Your task to perform on an android device: Add "lg ultragear" to the cart on walmart Image 0: 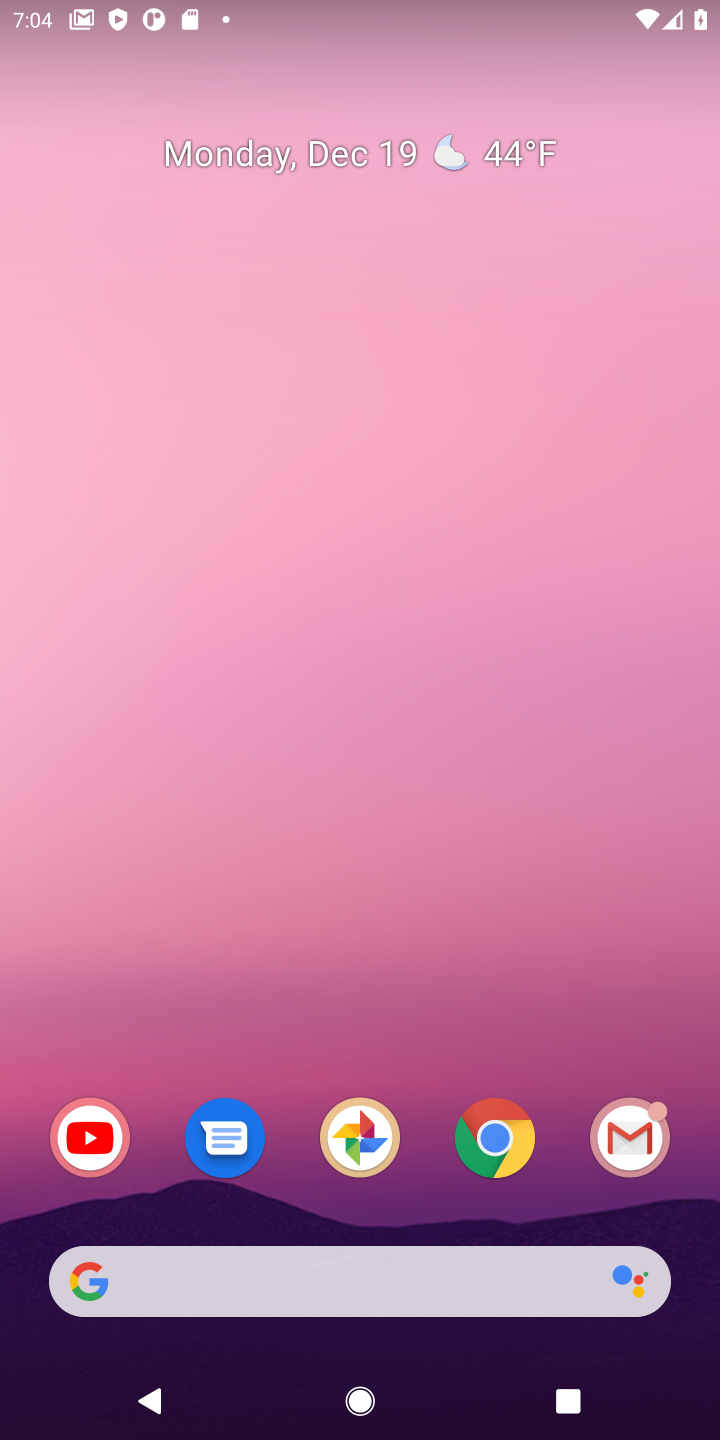
Step 0: click (491, 1135)
Your task to perform on an android device: Add "lg ultragear" to the cart on walmart Image 1: 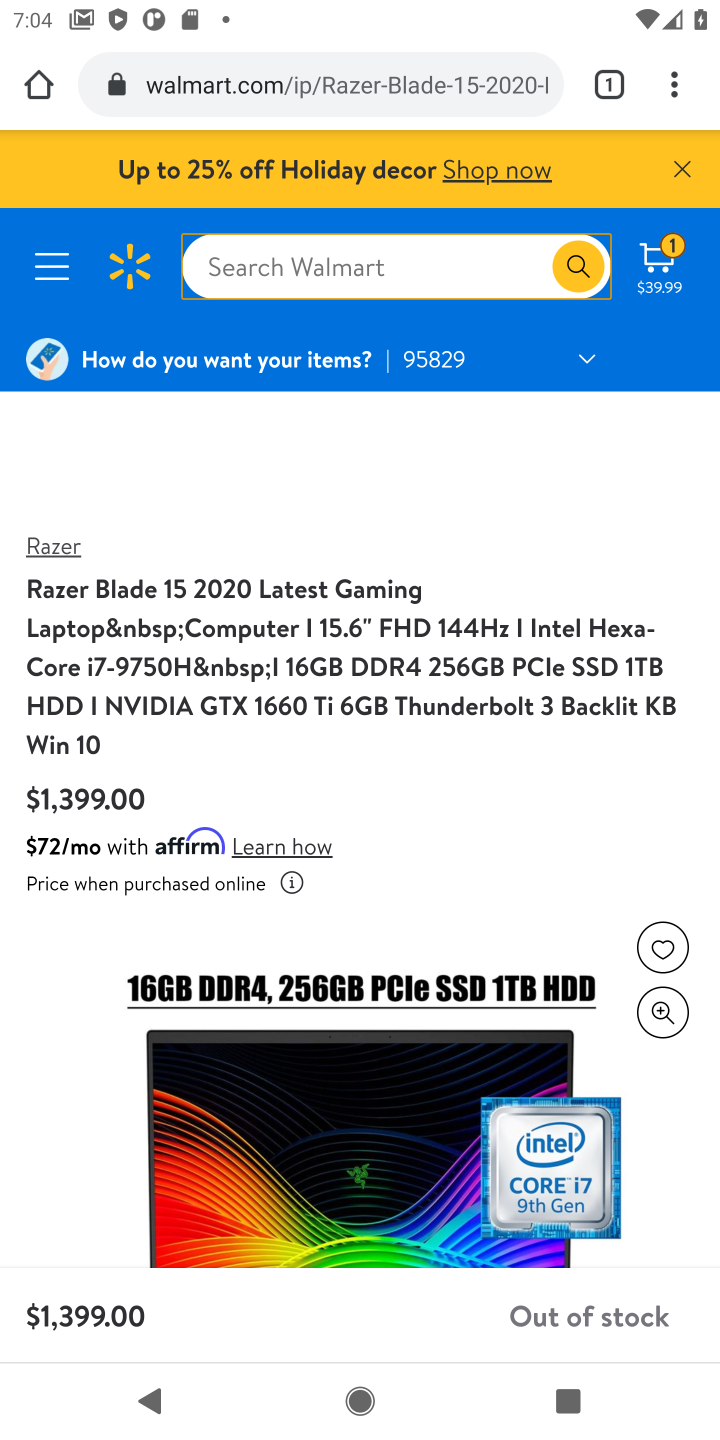
Step 1: click (368, 83)
Your task to perform on an android device: Add "lg ultragear" to the cart on walmart Image 2: 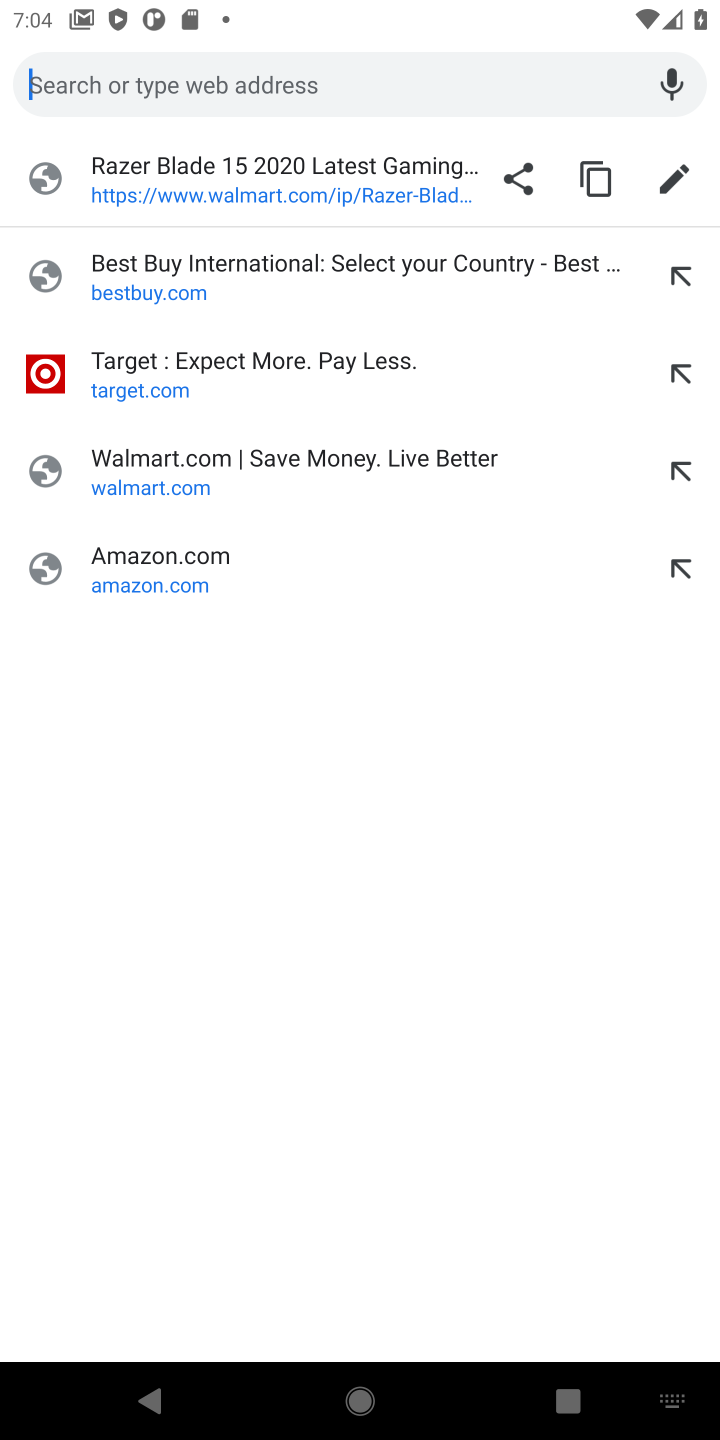
Step 2: click (255, 479)
Your task to perform on an android device: Add "lg ultragear" to the cart on walmart Image 3: 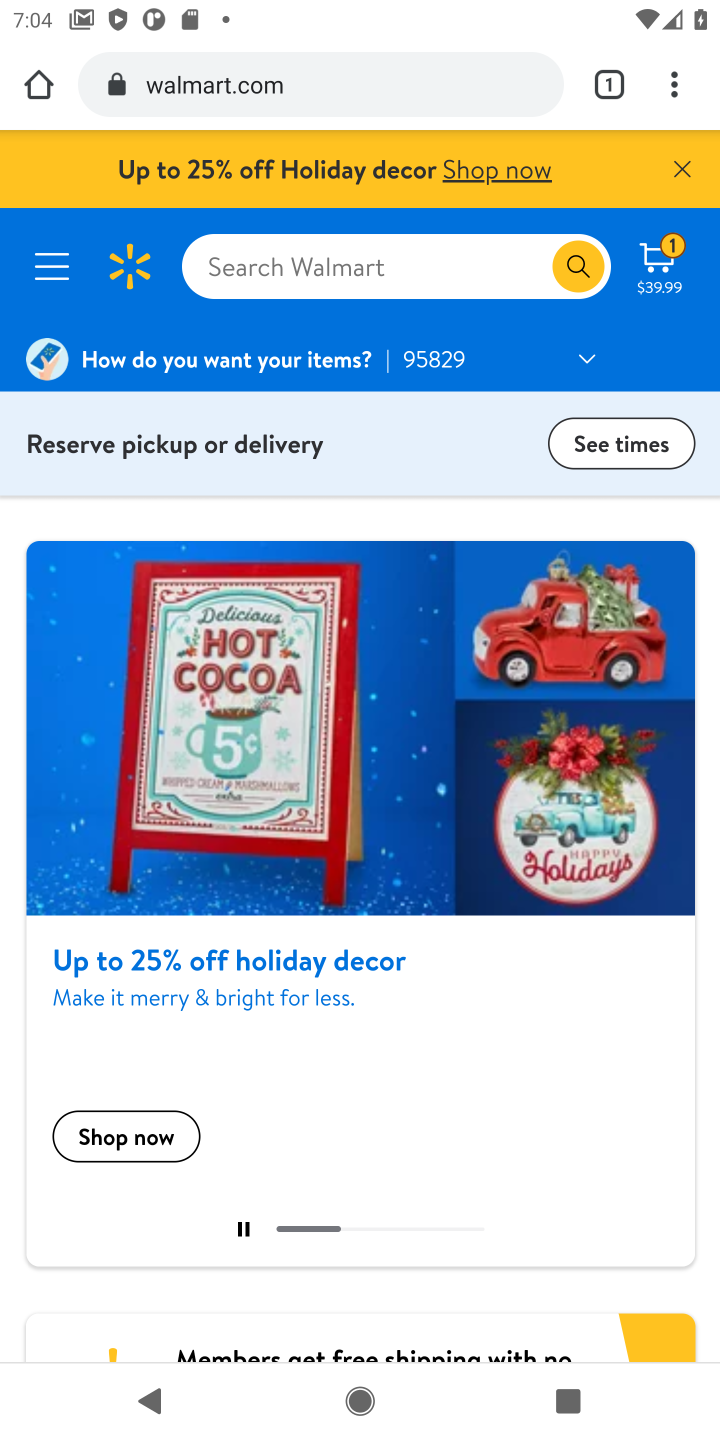
Step 3: click (370, 244)
Your task to perform on an android device: Add "lg ultragear" to the cart on walmart Image 4: 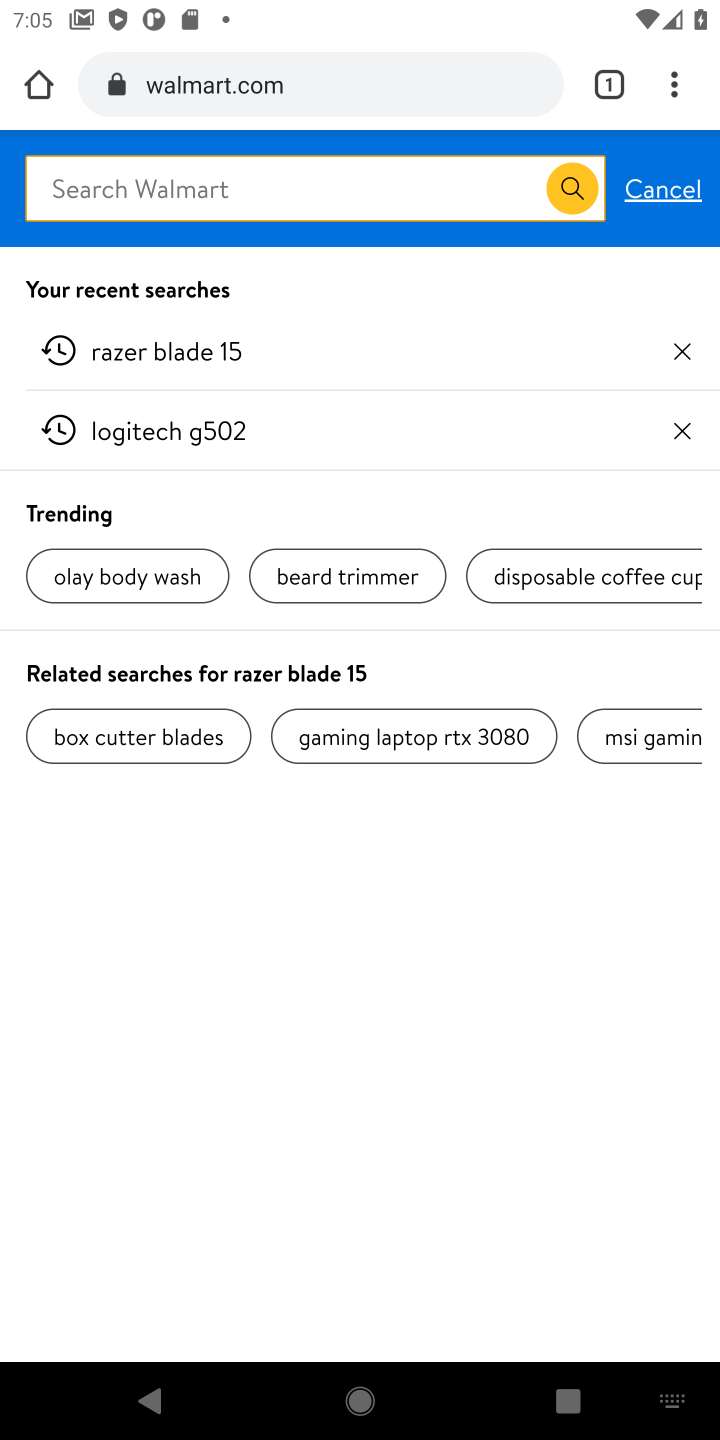
Step 4: type "LG ULTRAGEAR"
Your task to perform on an android device: Add "lg ultragear" to the cart on walmart Image 5: 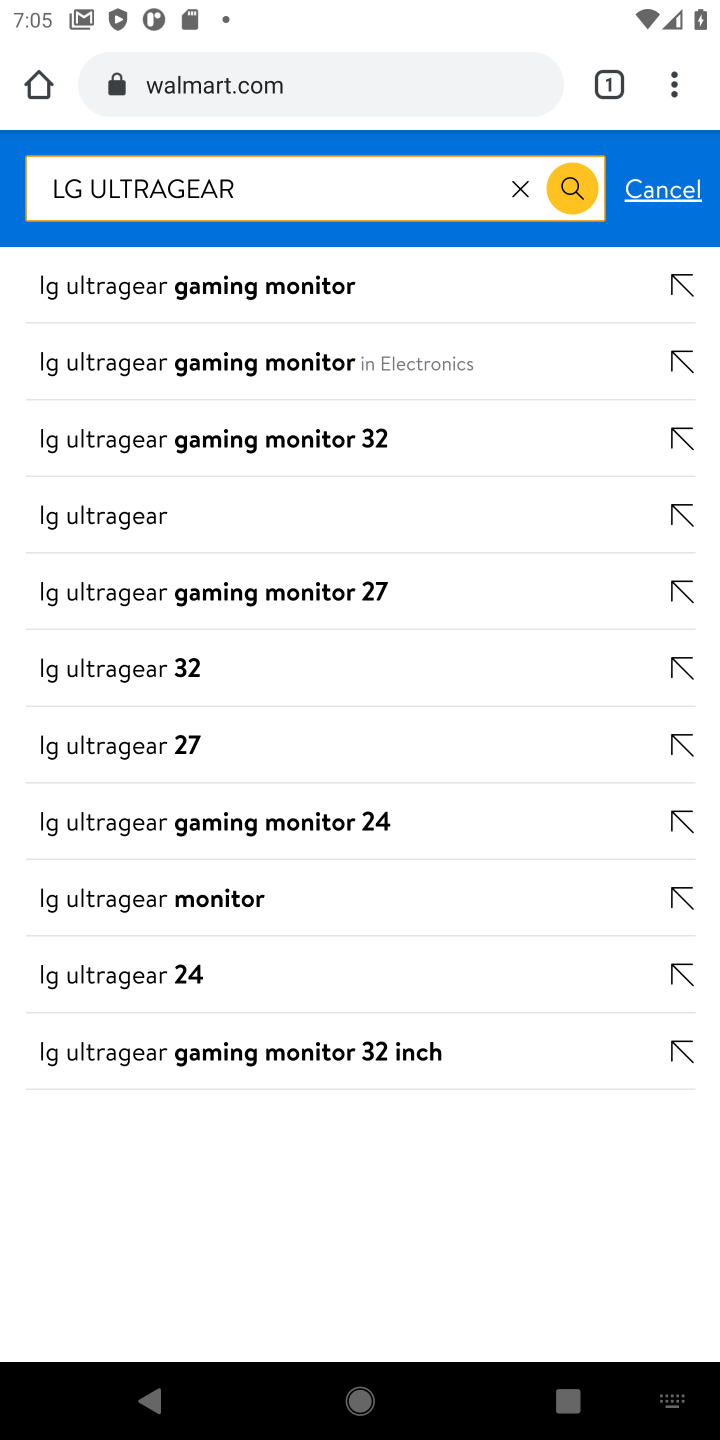
Step 5: click (192, 289)
Your task to perform on an android device: Add "lg ultragear" to the cart on walmart Image 6: 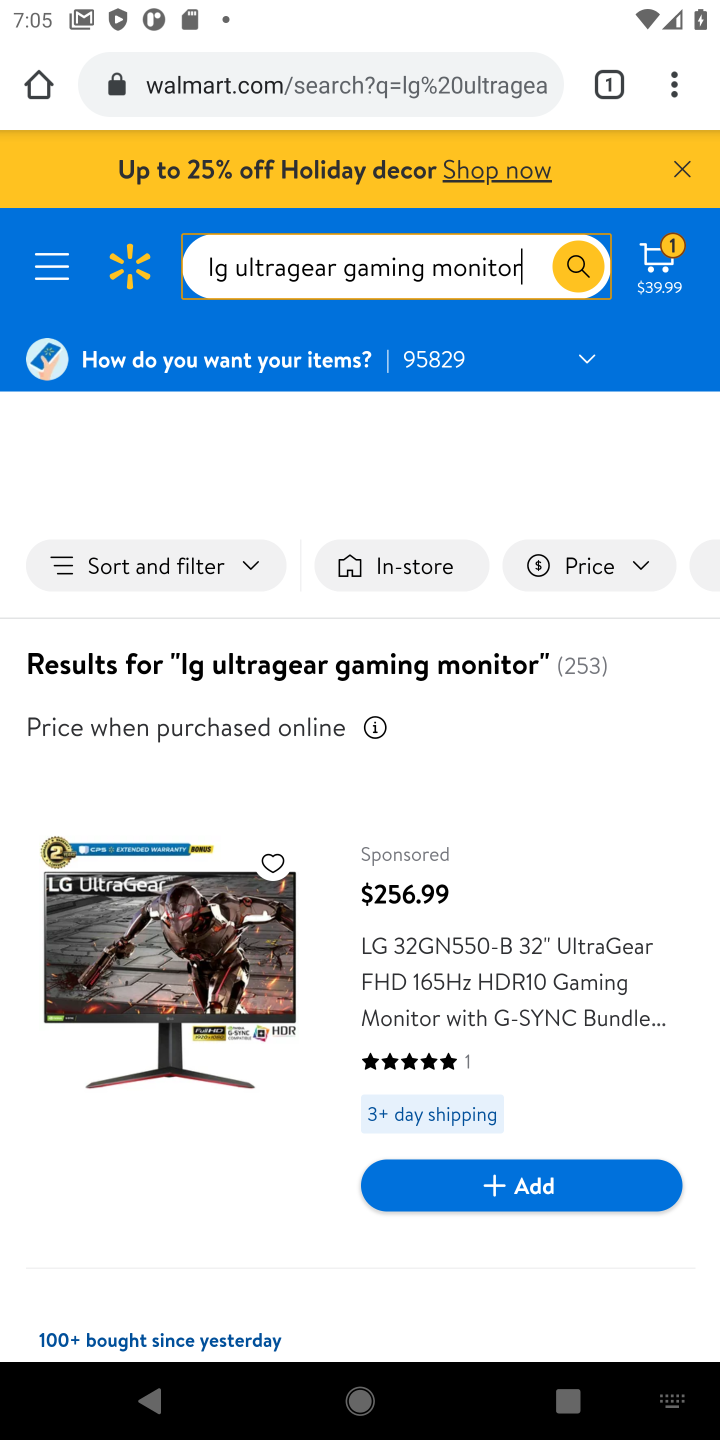
Step 6: click (572, 275)
Your task to perform on an android device: Add "lg ultragear" to the cart on walmart Image 7: 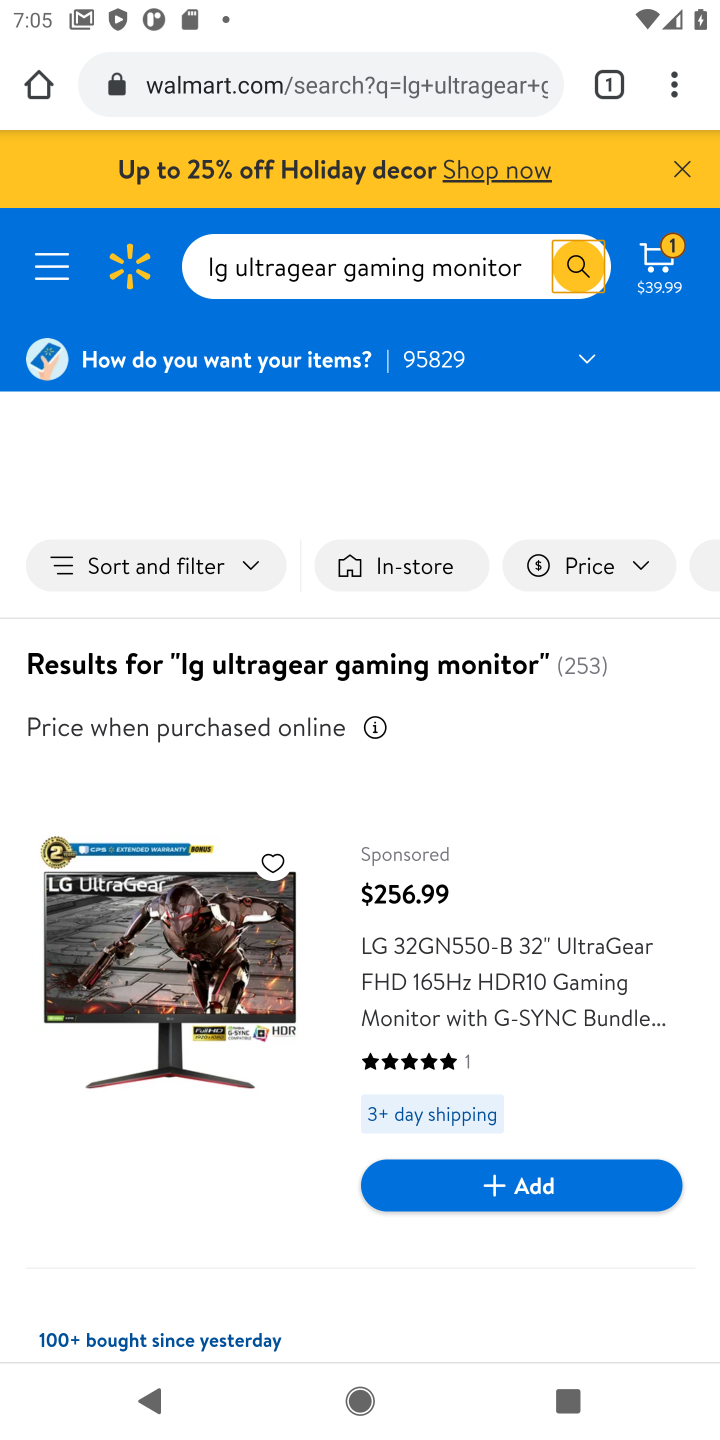
Step 7: click (529, 1184)
Your task to perform on an android device: Add "lg ultragear" to the cart on walmart Image 8: 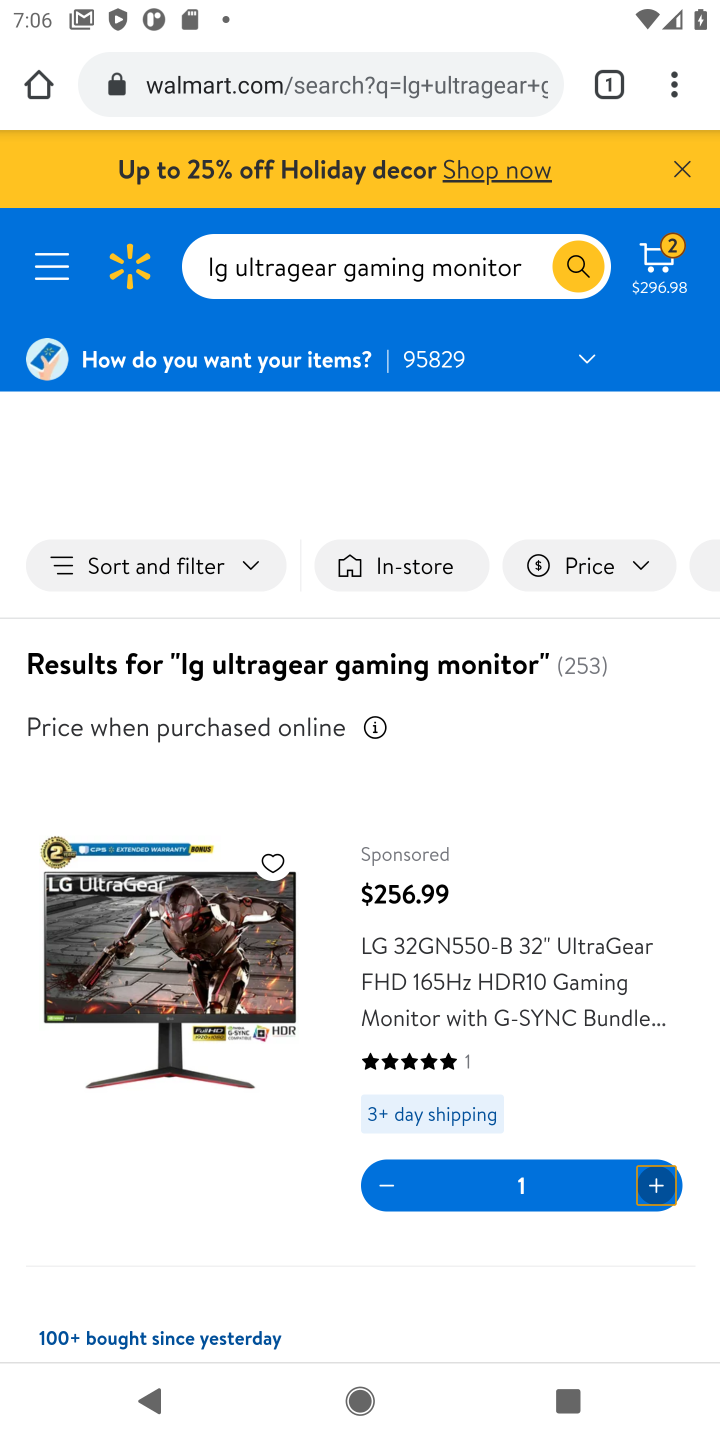
Step 8: task complete